Your task to perform on an android device: toggle improve location accuracy Image 0: 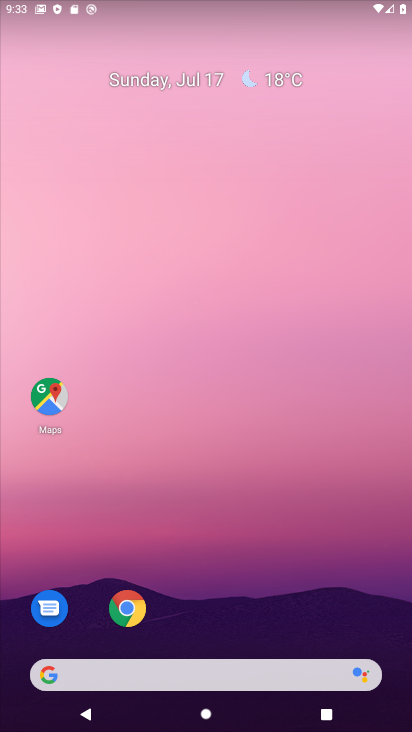
Step 0: drag from (272, 586) to (299, 208)
Your task to perform on an android device: toggle improve location accuracy Image 1: 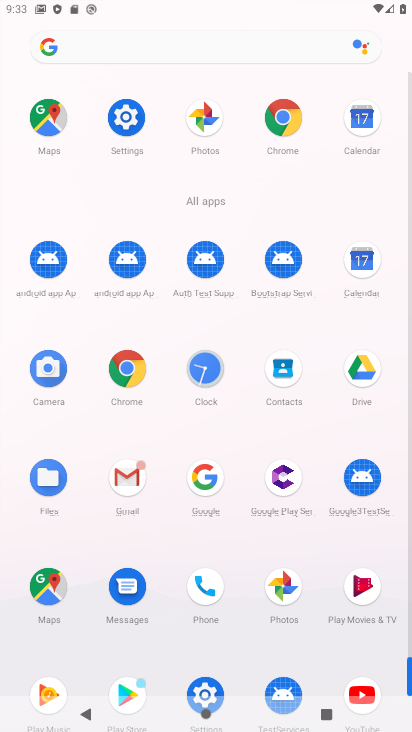
Step 1: drag from (230, 583) to (265, 380)
Your task to perform on an android device: toggle improve location accuracy Image 2: 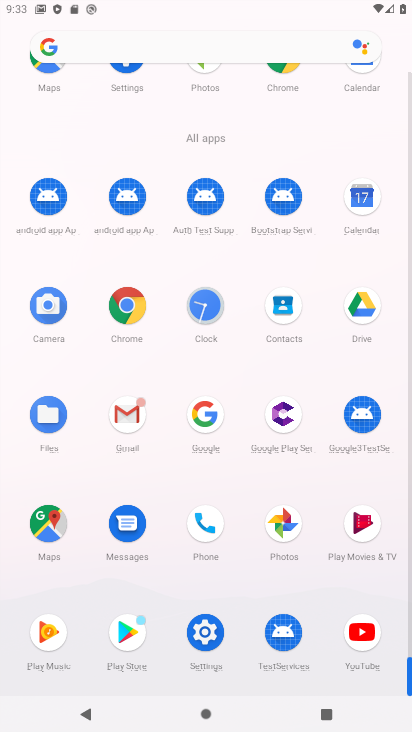
Step 2: click (201, 628)
Your task to perform on an android device: toggle improve location accuracy Image 3: 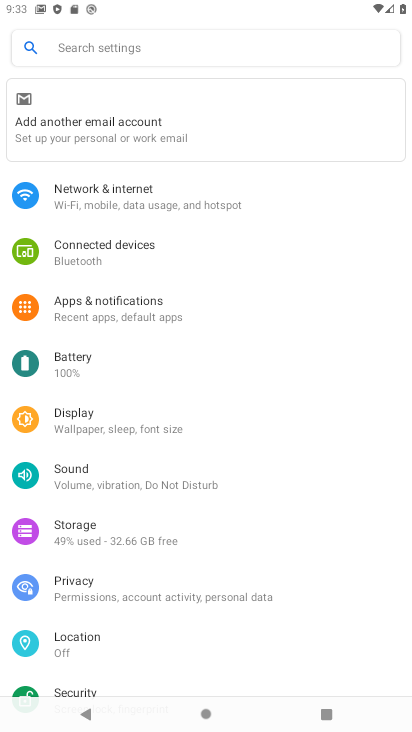
Step 3: click (79, 643)
Your task to perform on an android device: toggle improve location accuracy Image 4: 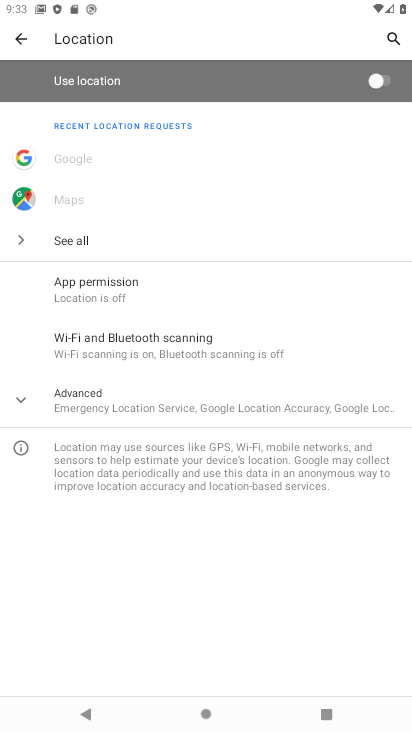
Step 4: click (381, 78)
Your task to perform on an android device: toggle improve location accuracy Image 5: 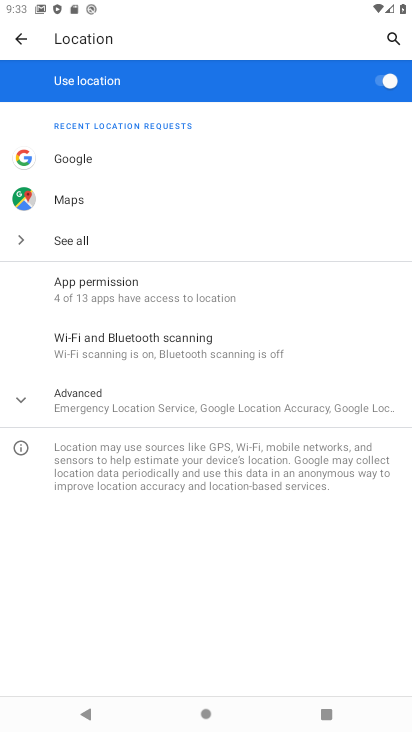
Step 5: task complete